Your task to perform on an android device: change notifications settings Image 0: 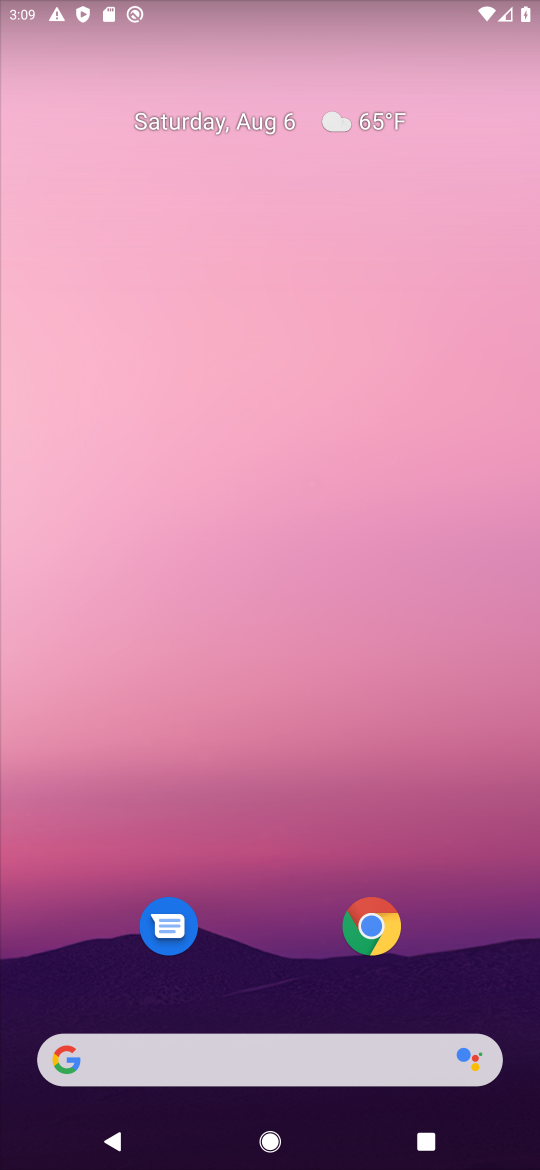
Step 0: drag from (268, 927) to (241, 315)
Your task to perform on an android device: change notifications settings Image 1: 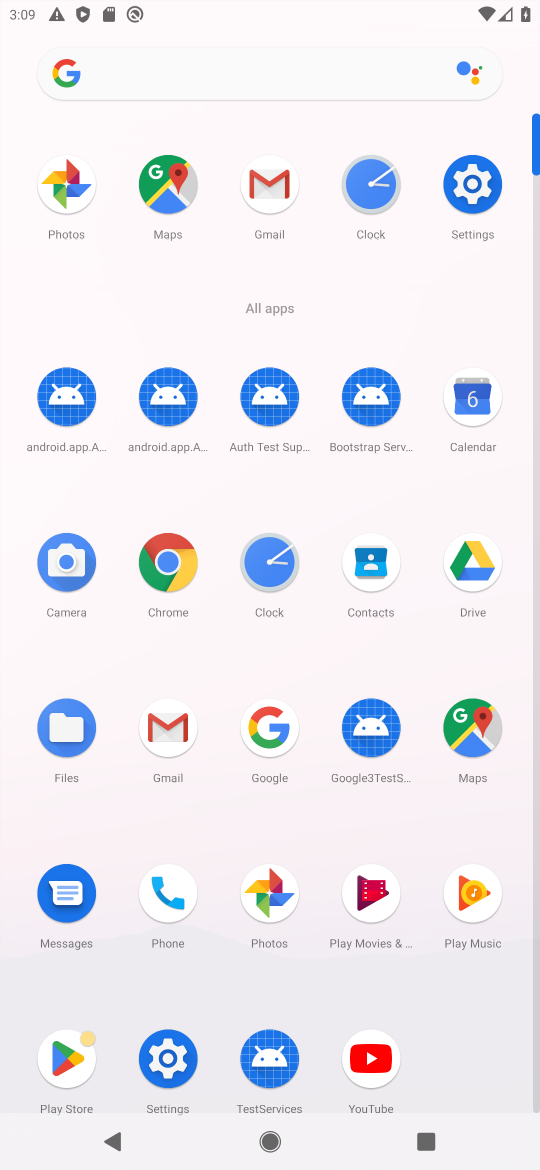
Step 1: click (491, 189)
Your task to perform on an android device: change notifications settings Image 2: 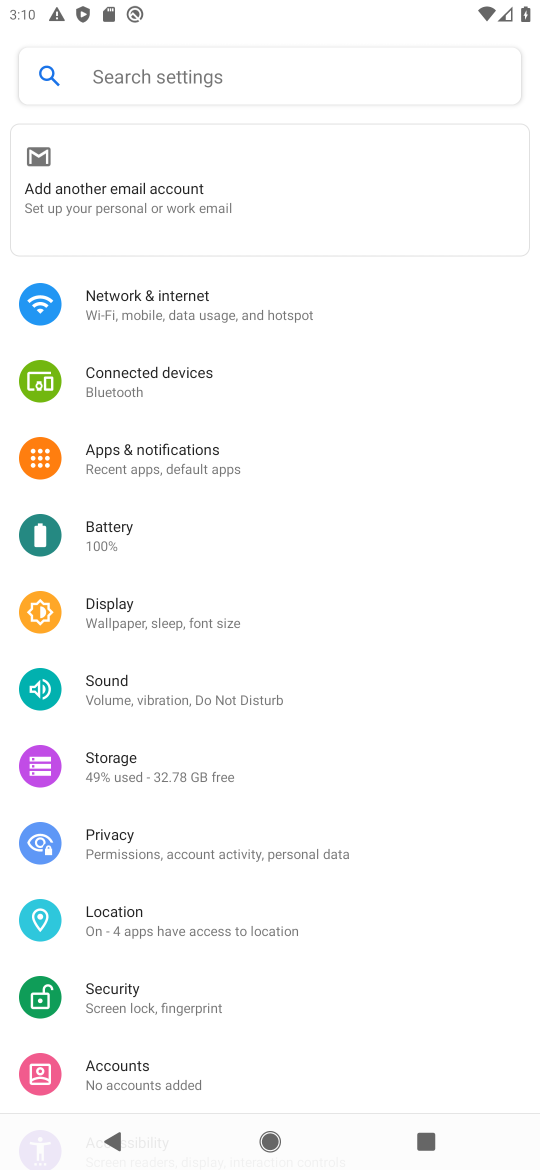
Step 2: click (252, 480)
Your task to perform on an android device: change notifications settings Image 3: 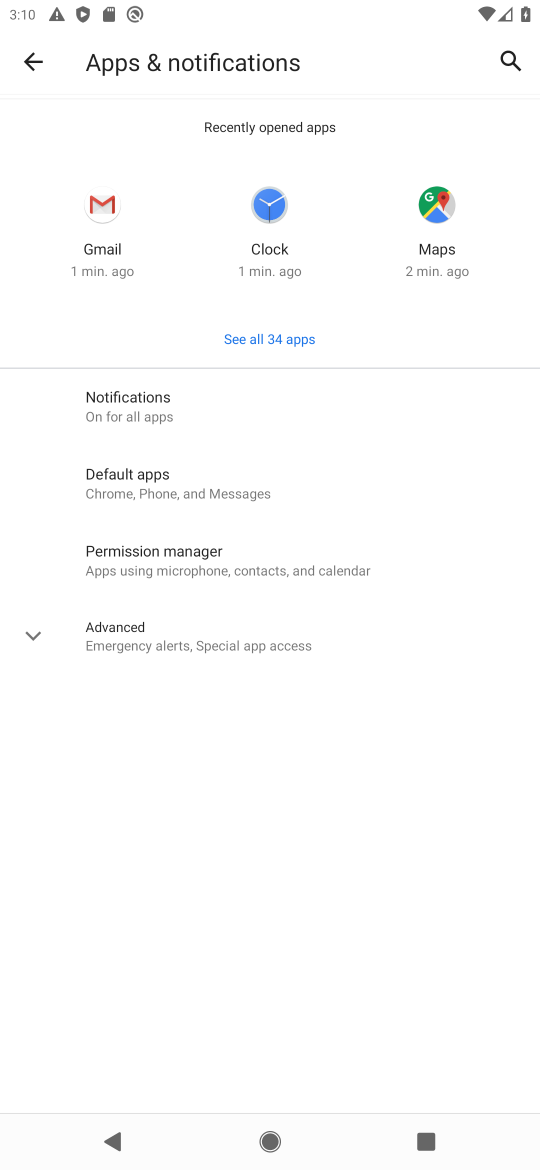
Step 3: click (170, 397)
Your task to perform on an android device: change notifications settings Image 4: 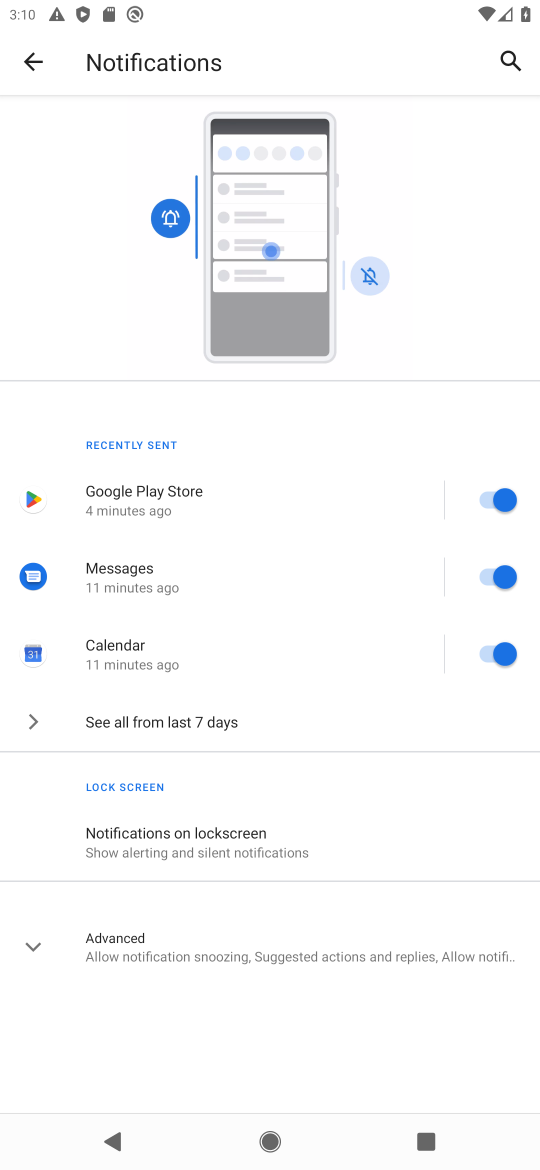
Step 4: task complete